Your task to perform on an android device: What's the weather going to be tomorrow? Image 0: 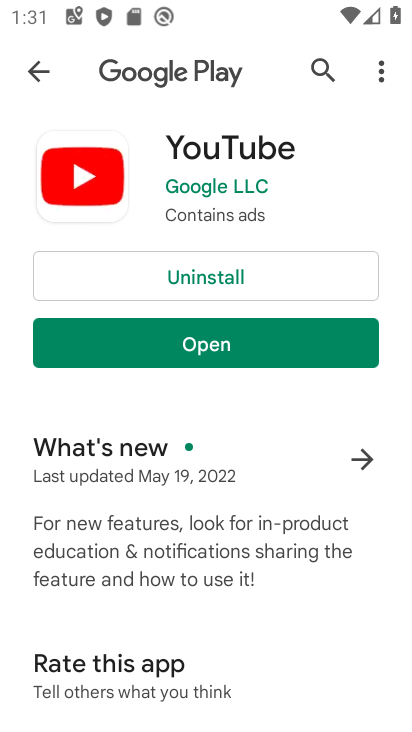
Step 0: press home button
Your task to perform on an android device: What's the weather going to be tomorrow? Image 1: 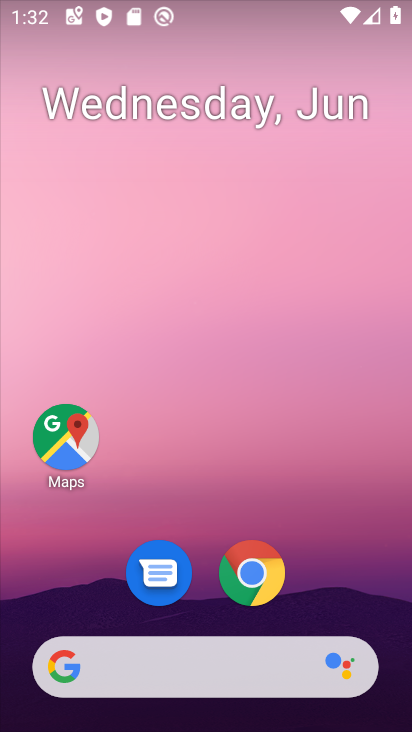
Step 1: drag from (368, 518) to (340, 101)
Your task to perform on an android device: What's the weather going to be tomorrow? Image 2: 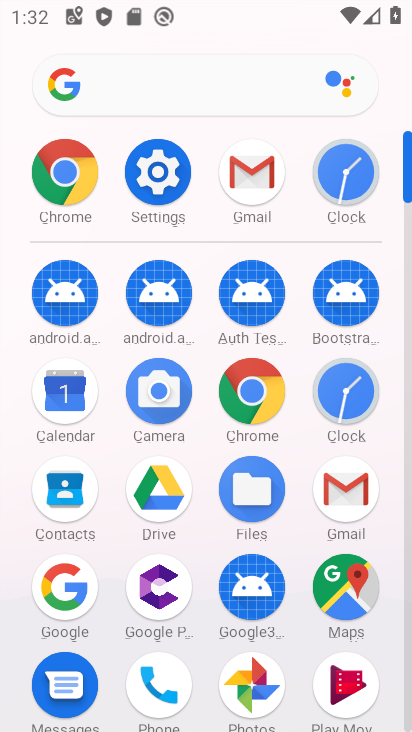
Step 2: click (267, 407)
Your task to perform on an android device: What's the weather going to be tomorrow? Image 3: 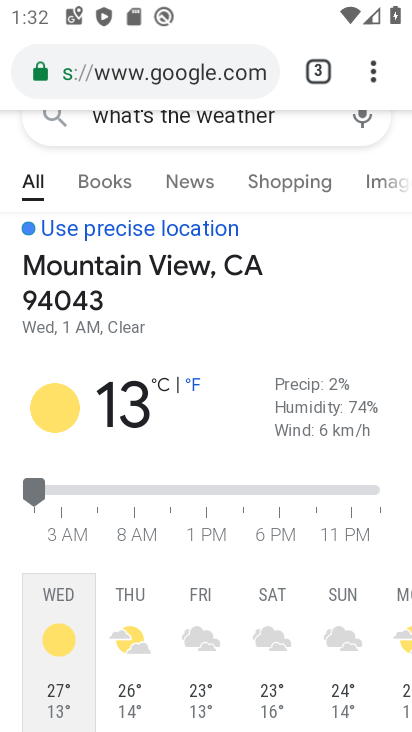
Step 3: click (162, 71)
Your task to perform on an android device: What's the weather going to be tomorrow? Image 4: 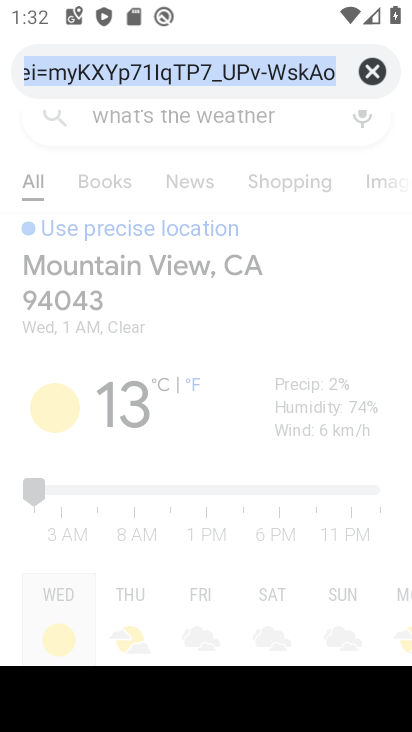
Step 4: click (369, 81)
Your task to perform on an android device: What's the weather going to be tomorrow? Image 5: 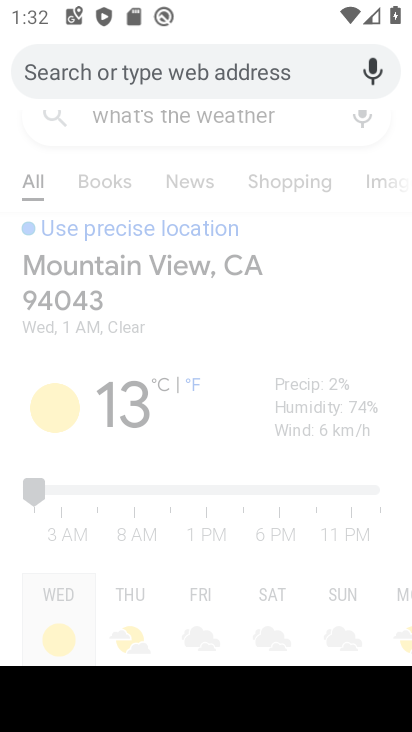
Step 5: type "what's the weather going to be tomorrow"
Your task to perform on an android device: What's the weather going to be tomorrow? Image 6: 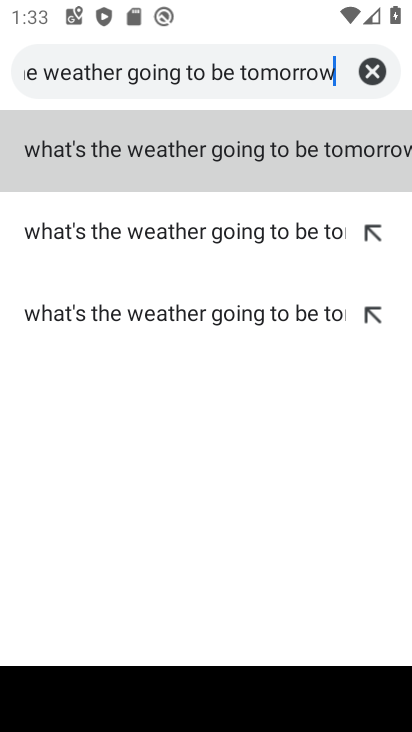
Step 6: click (179, 232)
Your task to perform on an android device: What's the weather going to be tomorrow? Image 7: 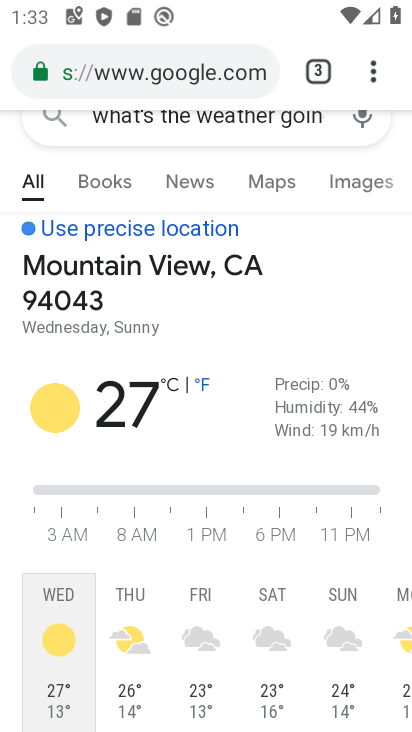
Step 7: task complete